Your task to perform on an android device: find which apps use the phone's location Image 0: 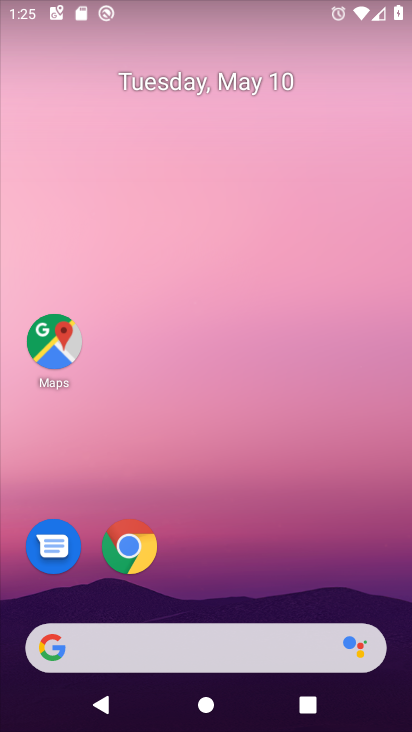
Step 0: drag from (263, 488) to (267, 109)
Your task to perform on an android device: find which apps use the phone's location Image 1: 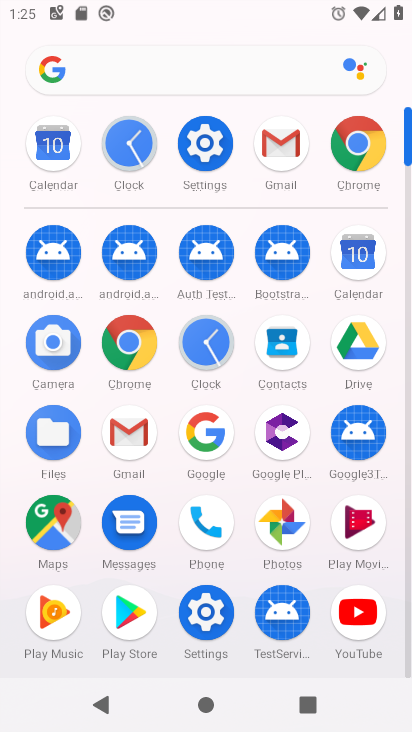
Step 1: click (201, 531)
Your task to perform on an android device: find which apps use the phone's location Image 2: 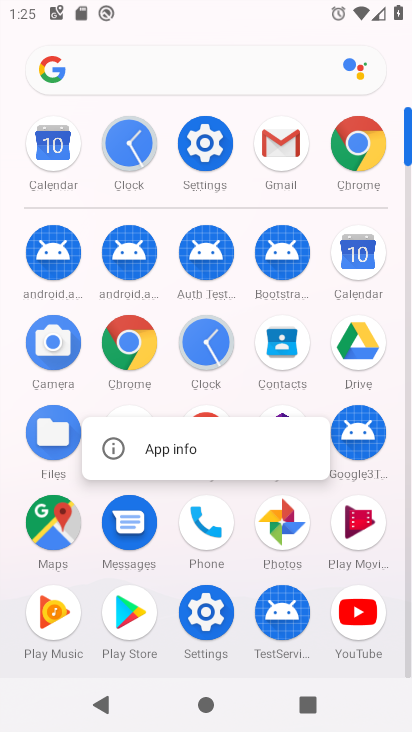
Step 2: click (261, 454)
Your task to perform on an android device: find which apps use the phone's location Image 3: 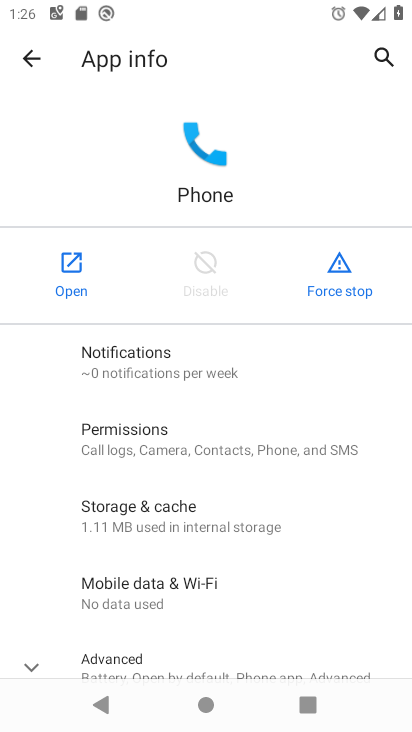
Step 3: drag from (282, 615) to (280, 471)
Your task to perform on an android device: find which apps use the phone's location Image 4: 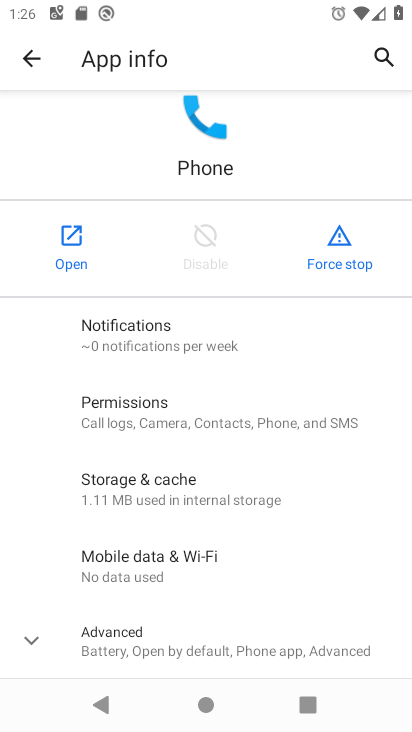
Step 4: click (288, 409)
Your task to perform on an android device: find which apps use the phone's location Image 5: 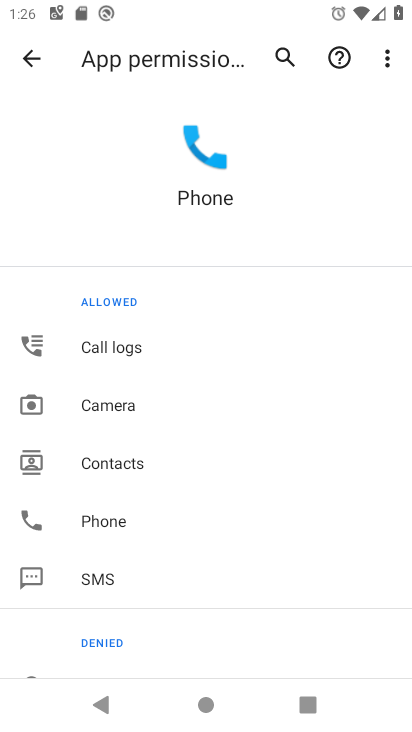
Step 5: drag from (142, 611) to (167, 458)
Your task to perform on an android device: find which apps use the phone's location Image 6: 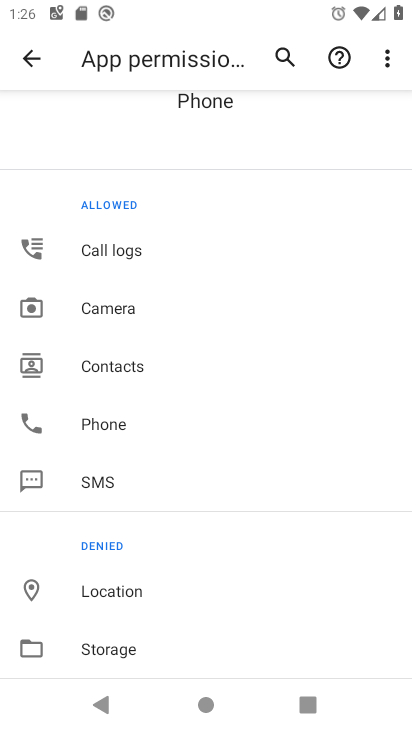
Step 6: click (130, 579)
Your task to perform on an android device: find which apps use the phone's location Image 7: 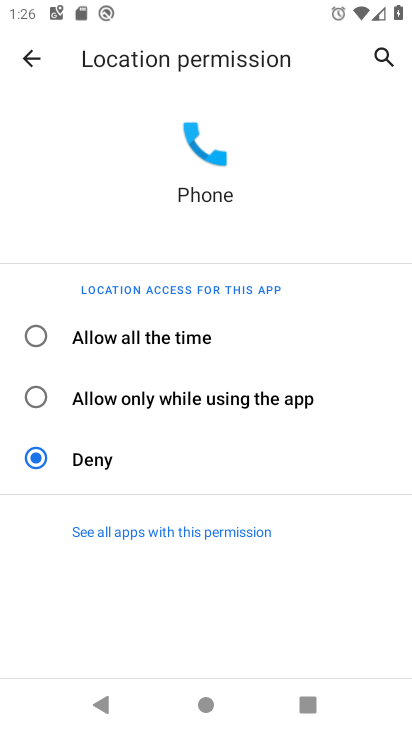
Step 7: click (203, 524)
Your task to perform on an android device: find which apps use the phone's location Image 8: 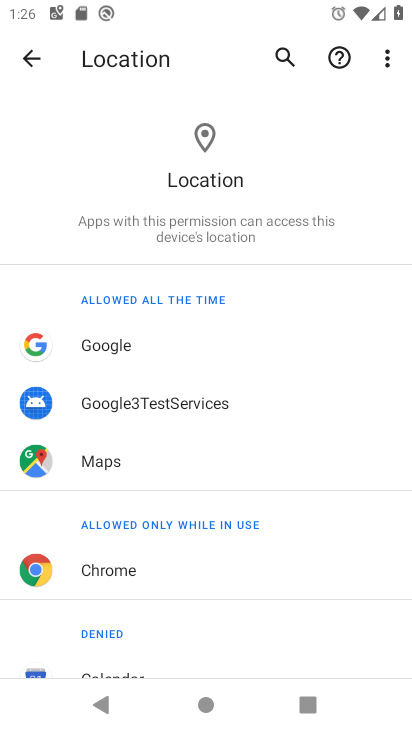
Step 8: task complete